Your task to perform on an android device: What's on my calendar tomorrow? Image 0: 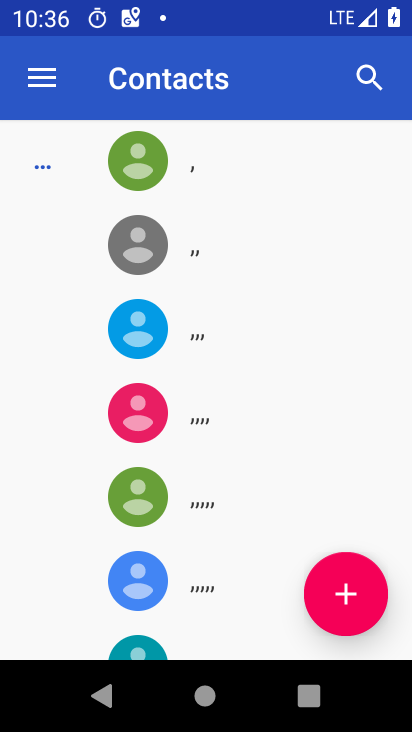
Step 0: press home button
Your task to perform on an android device: What's on my calendar tomorrow? Image 1: 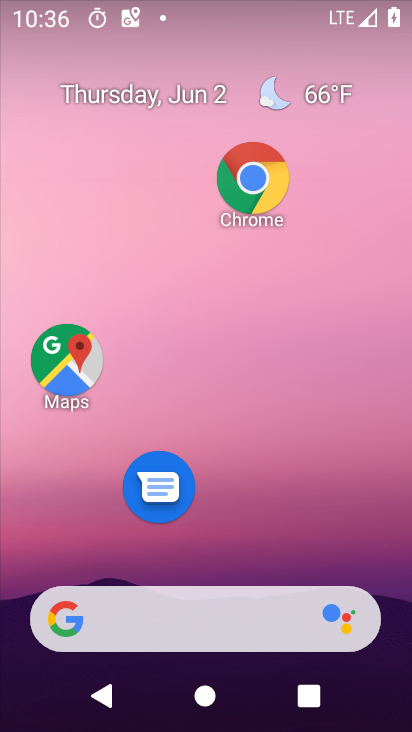
Step 1: drag from (226, 730) to (226, 73)
Your task to perform on an android device: What's on my calendar tomorrow? Image 2: 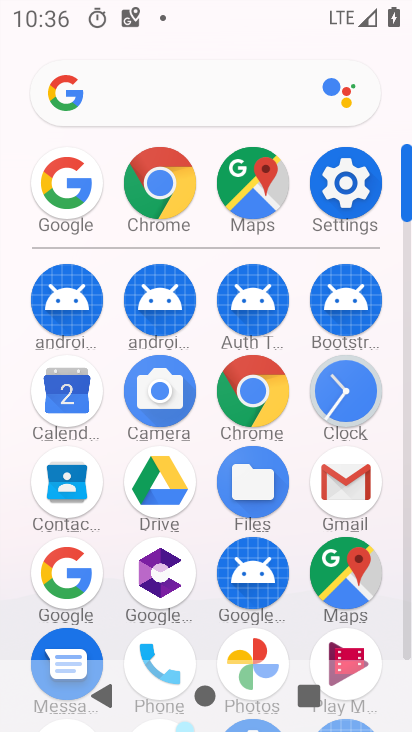
Step 2: click (58, 402)
Your task to perform on an android device: What's on my calendar tomorrow? Image 3: 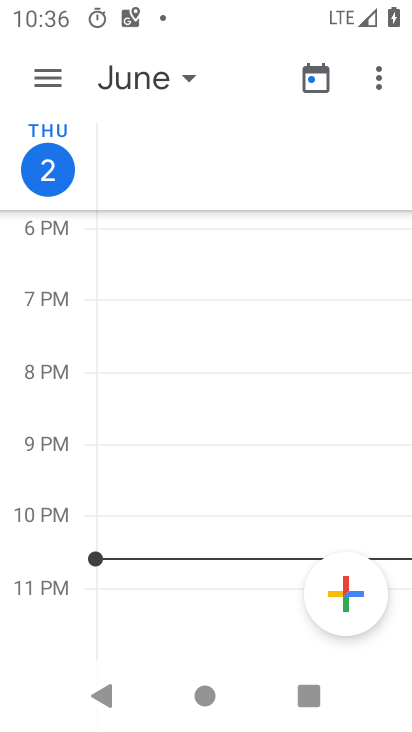
Step 3: click (189, 79)
Your task to perform on an android device: What's on my calendar tomorrow? Image 4: 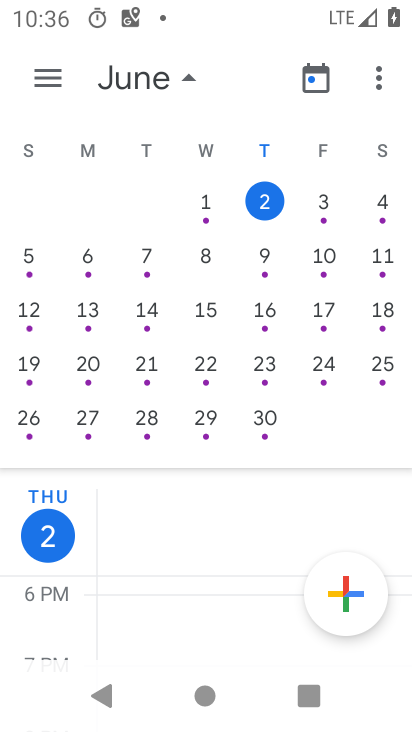
Step 4: click (320, 200)
Your task to perform on an android device: What's on my calendar tomorrow? Image 5: 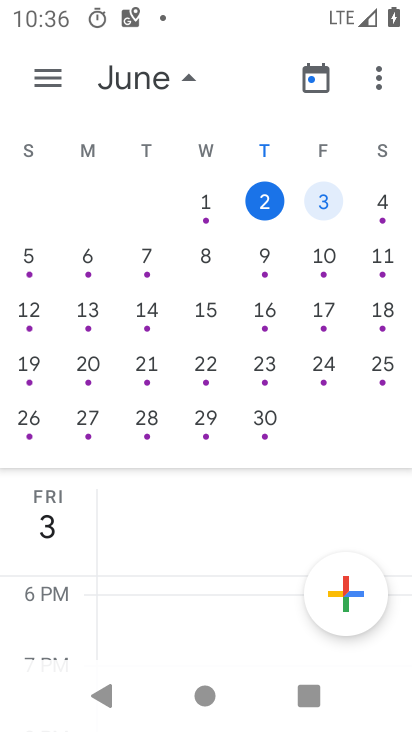
Step 5: click (321, 198)
Your task to perform on an android device: What's on my calendar tomorrow? Image 6: 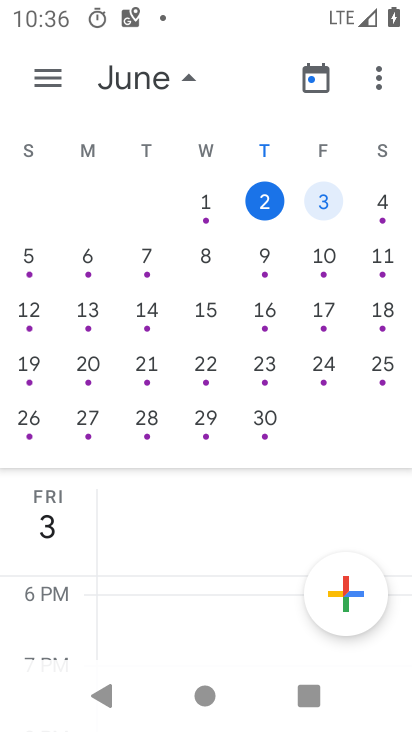
Step 6: click (322, 197)
Your task to perform on an android device: What's on my calendar tomorrow? Image 7: 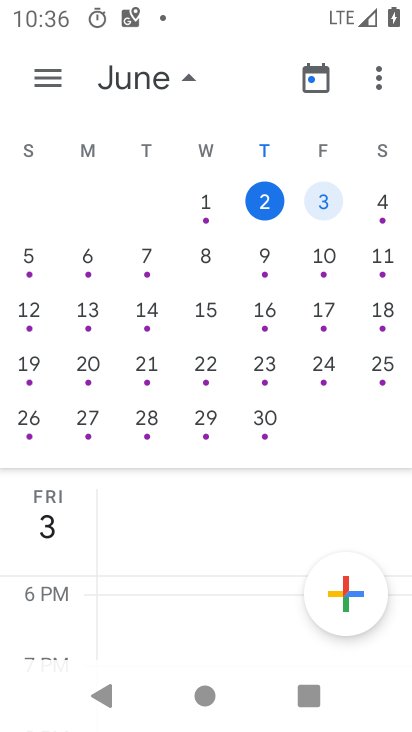
Step 7: click (323, 195)
Your task to perform on an android device: What's on my calendar tomorrow? Image 8: 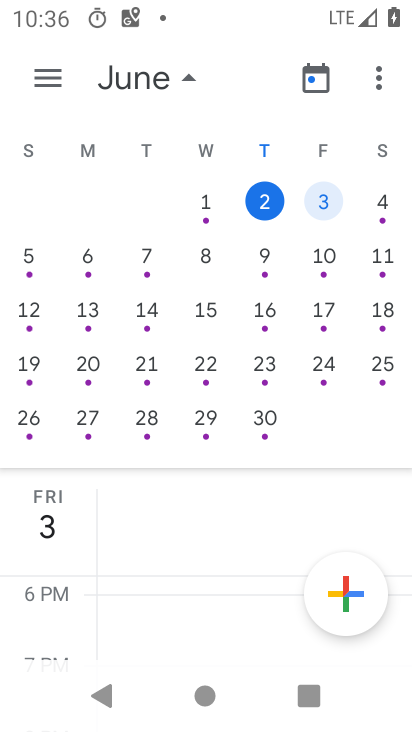
Step 8: click (324, 194)
Your task to perform on an android device: What's on my calendar tomorrow? Image 9: 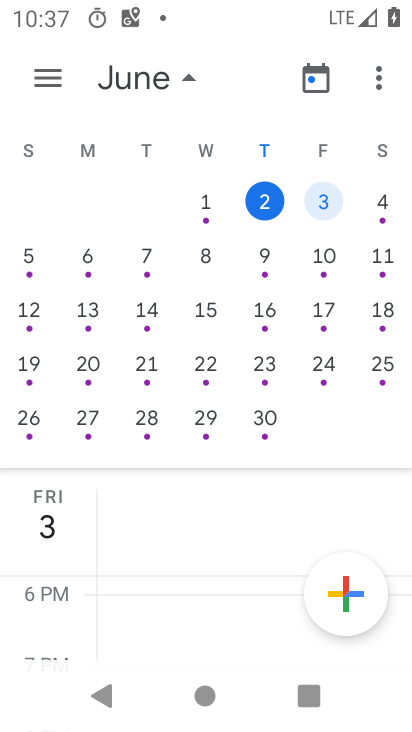
Step 9: click (191, 77)
Your task to perform on an android device: What's on my calendar tomorrow? Image 10: 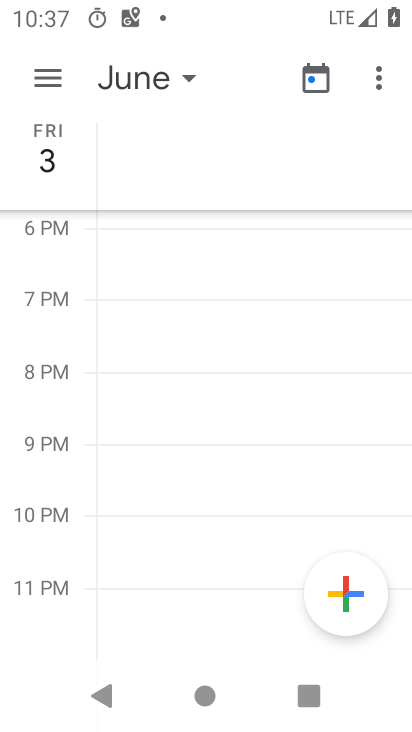
Step 10: click (191, 77)
Your task to perform on an android device: What's on my calendar tomorrow? Image 11: 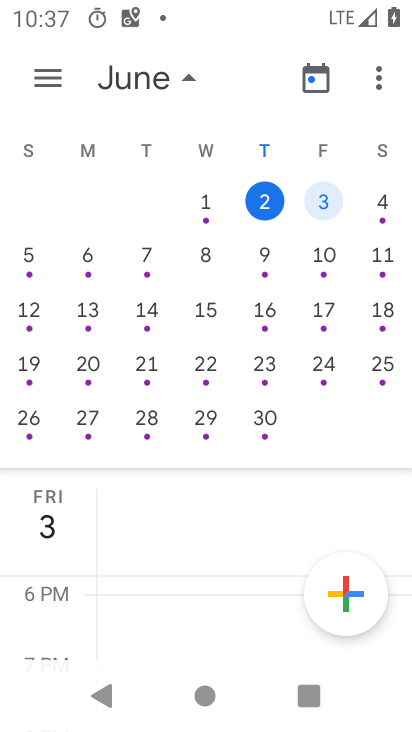
Step 11: task complete